Your task to perform on an android device: Show me the alarms in the clock app Image 0: 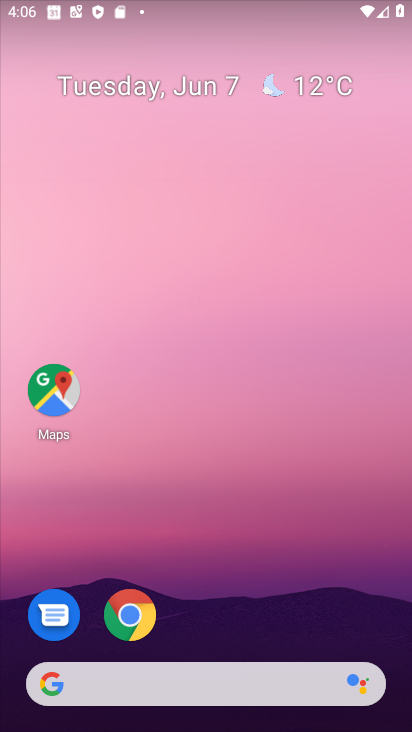
Step 0: drag from (259, 588) to (398, 230)
Your task to perform on an android device: Show me the alarms in the clock app Image 1: 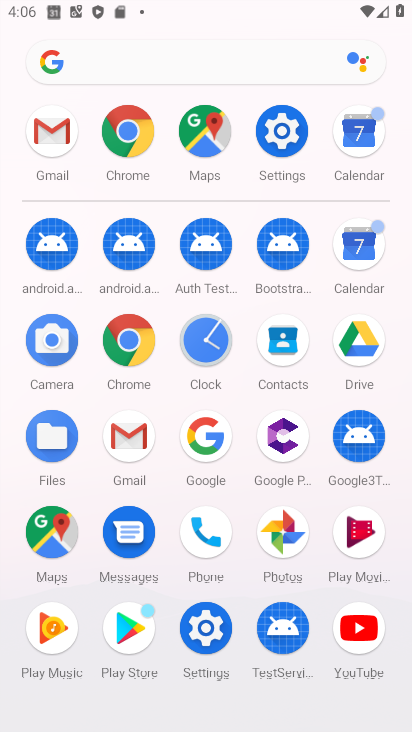
Step 1: click (214, 337)
Your task to perform on an android device: Show me the alarms in the clock app Image 2: 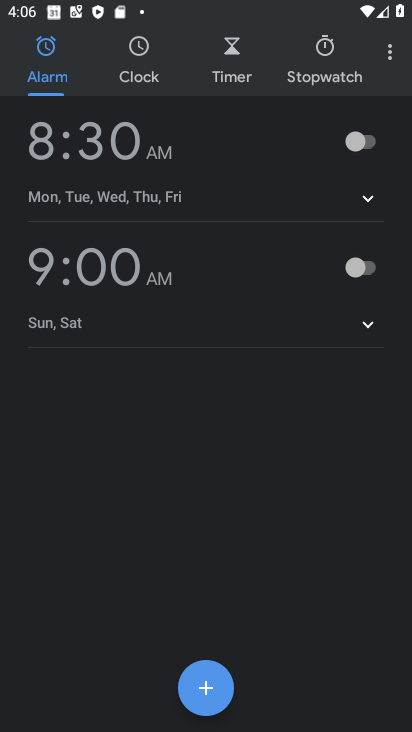
Step 2: task complete